Your task to perform on an android device: change your default location settings in chrome Image 0: 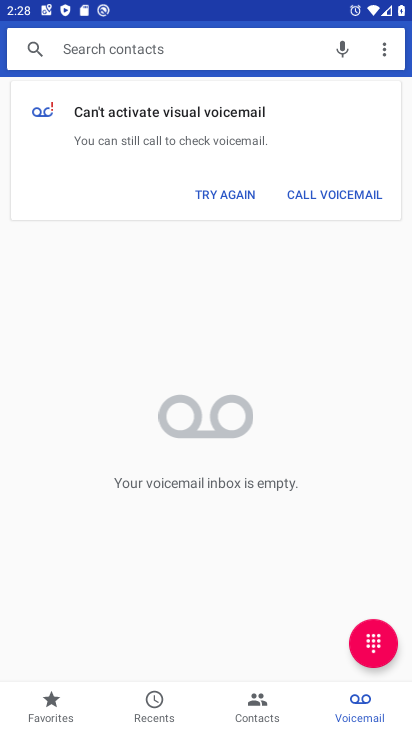
Step 0: press home button
Your task to perform on an android device: change your default location settings in chrome Image 1: 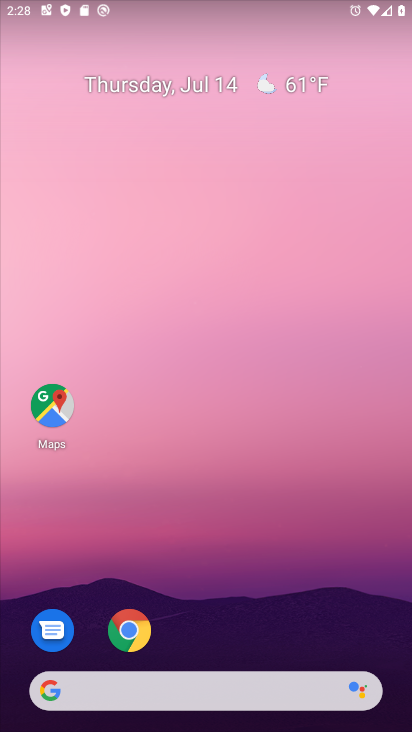
Step 1: click (121, 626)
Your task to perform on an android device: change your default location settings in chrome Image 2: 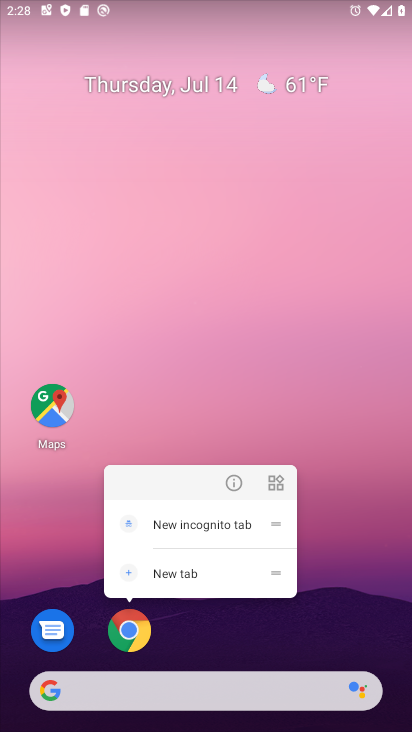
Step 2: click (129, 634)
Your task to perform on an android device: change your default location settings in chrome Image 3: 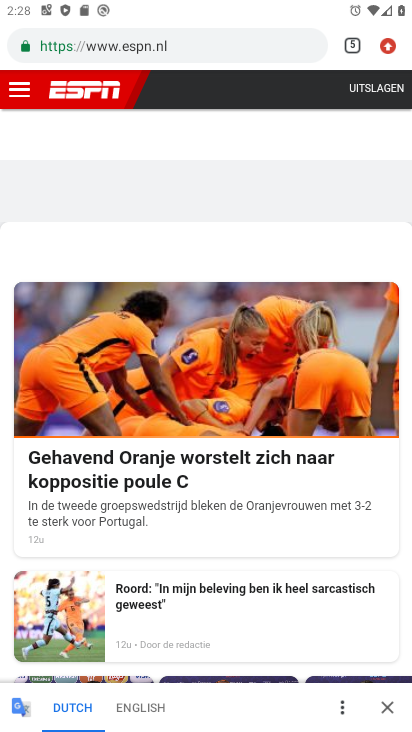
Step 3: click (386, 41)
Your task to perform on an android device: change your default location settings in chrome Image 4: 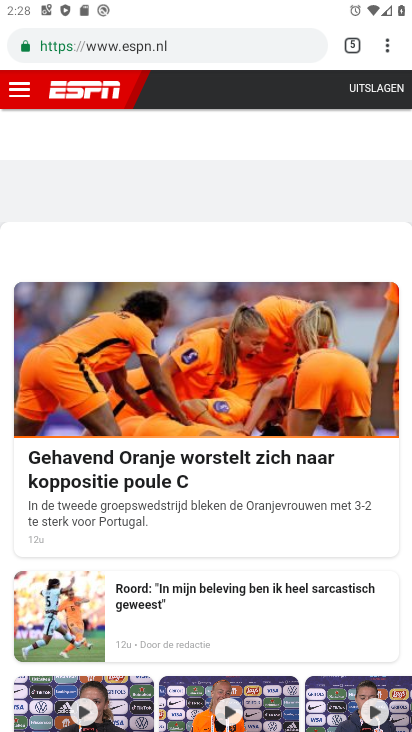
Step 4: drag from (385, 45) to (273, 597)
Your task to perform on an android device: change your default location settings in chrome Image 5: 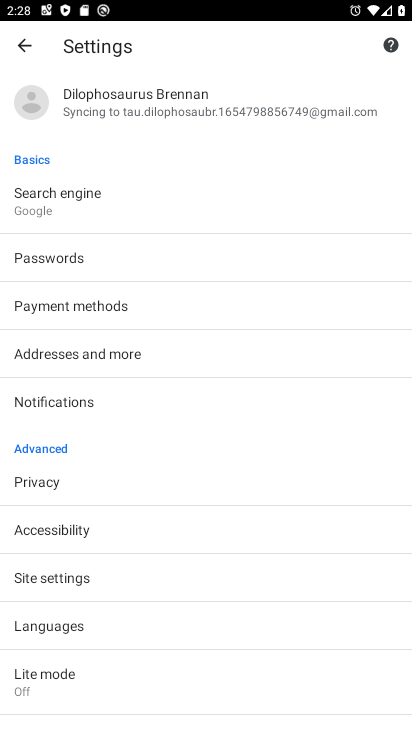
Step 5: drag from (146, 569) to (263, 292)
Your task to perform on an android device: change your default location settings in chrome Image 6: 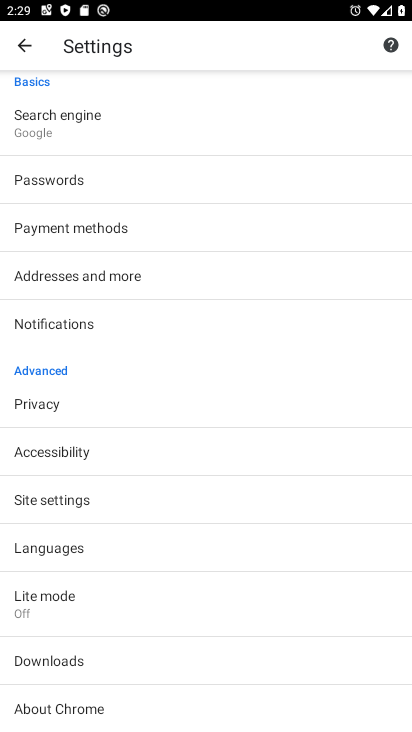
Step 6: click (117, 501)
Your task to perform on an android device: change your default location settings in chrome Image 7: 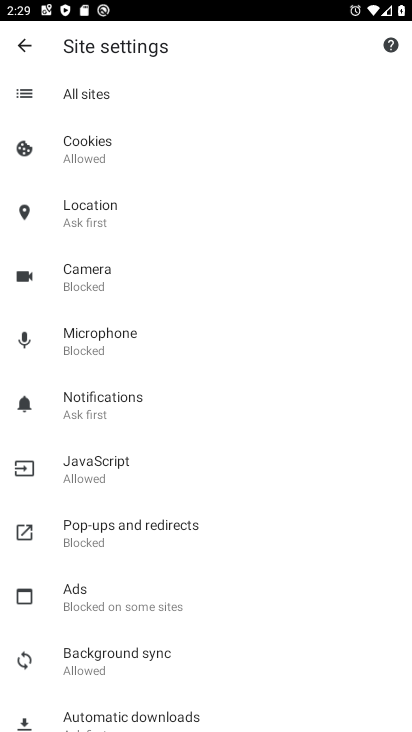
Step 7: click (129, 216)
Your task to perform on an android device: change your default location settings in chrome Image 8: 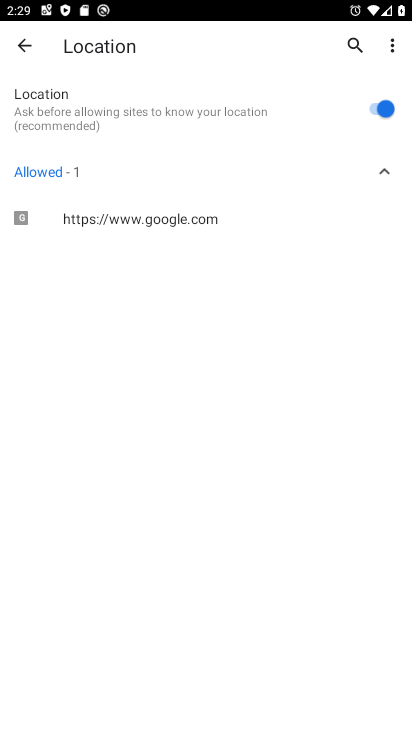
Step 8: click (370, 108)
Your task to perform on an android device: change your default location settings in chrome Image 9: 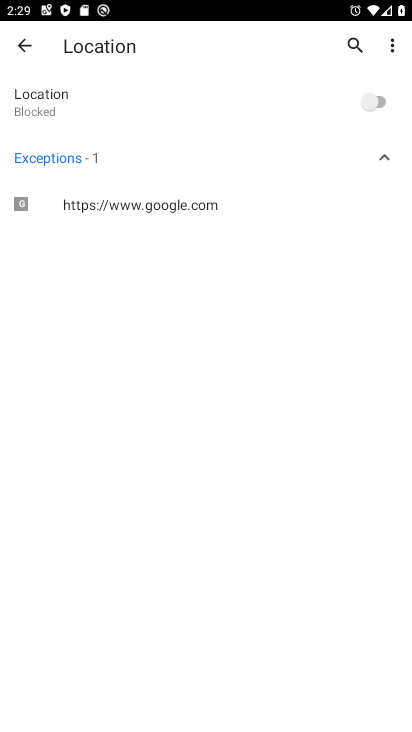
Step 9: task complete